Your task to perform on an android device: open app "Mercado Libre" (install if not already installed) Image 0: 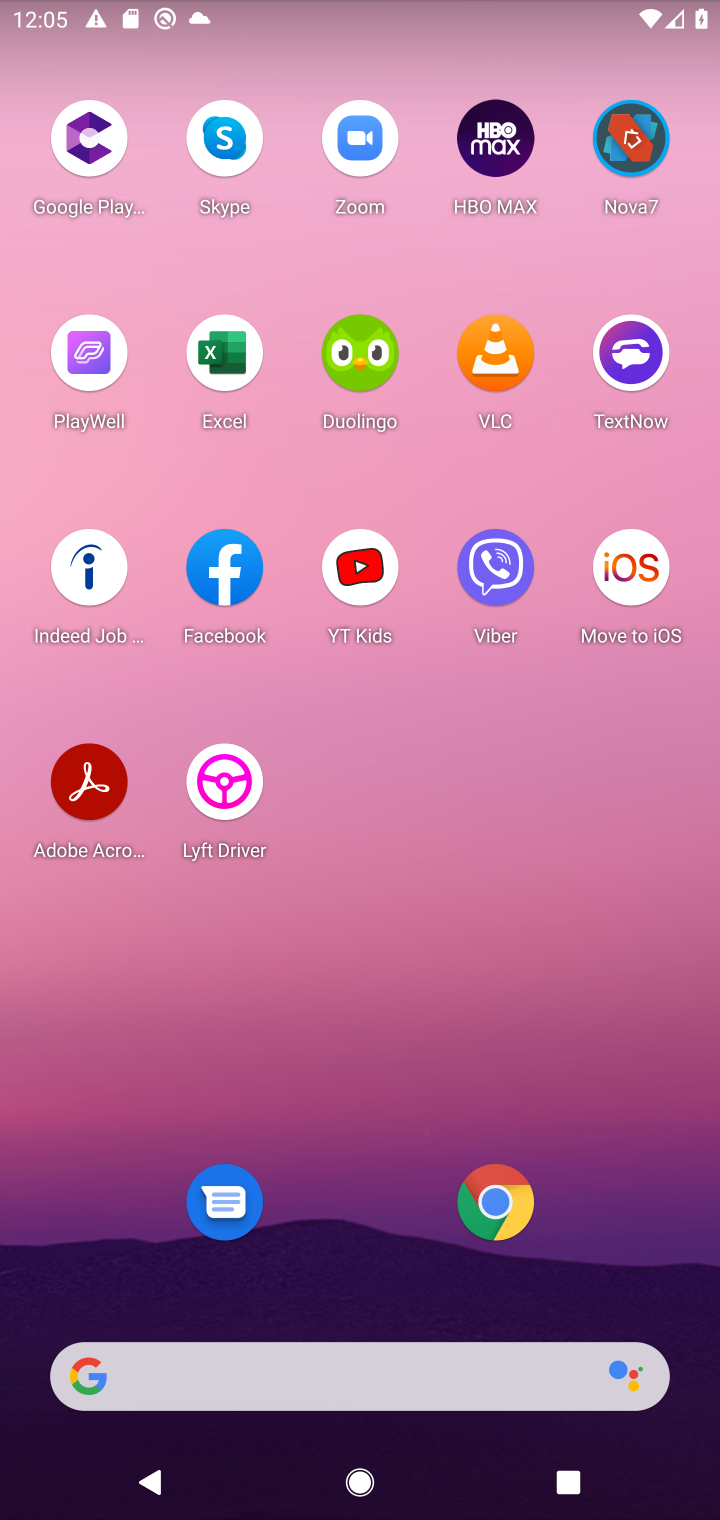
Step 0: task impossible